Your task to perform on an android device: see creations saved in the google photos Image 0: 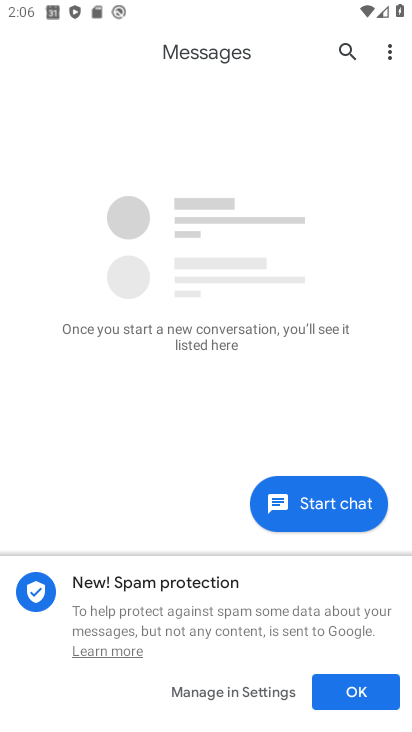
Step 0: press home button
Your task to perform on an android device: see creations saved in the google photos Image 1: 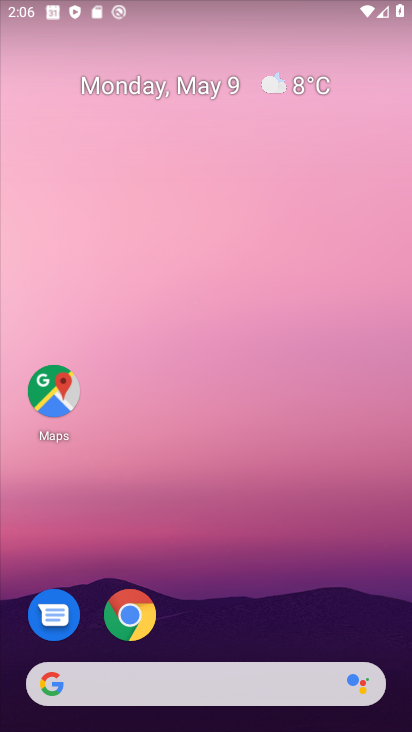
Step 1: drag from (253, 632) to (233, 71)
Your task to perform on an android device: see creations saved in the google photos Image 2: 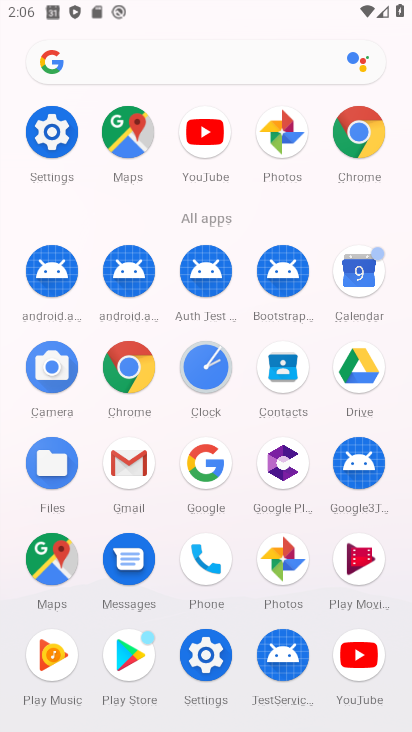
Step 2: click (282, 552)
Your task to perform on an android device: see creations saved in the google photos Image 3: 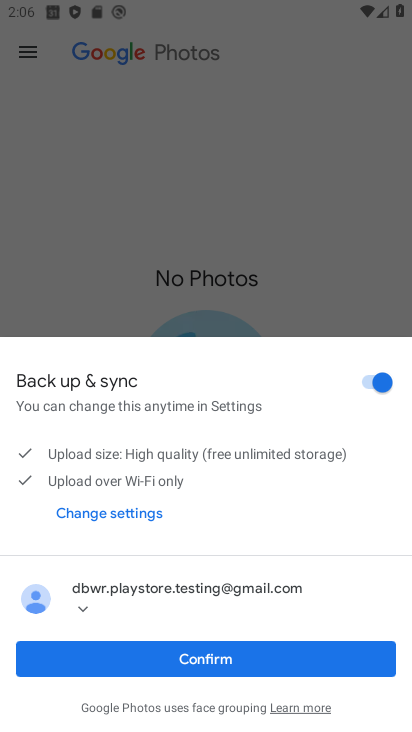
Step 3: click (253, 667)
Your task to perform on an android device: see creations saved in the google photos Image 4: 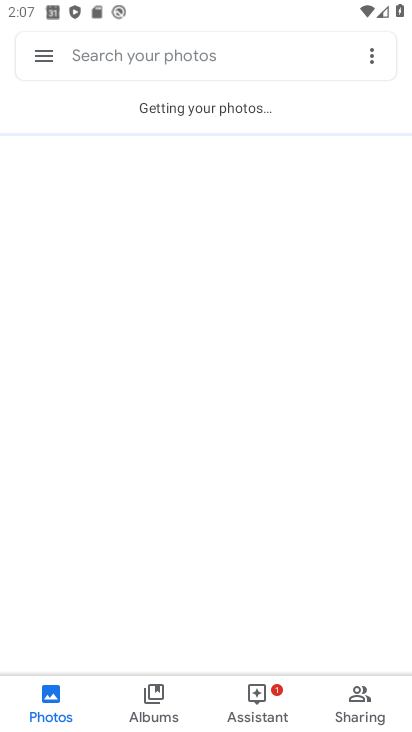
Step 4: click (179, 54)
Your task to perform on an android device: see creations saved in the google photos Image 5: 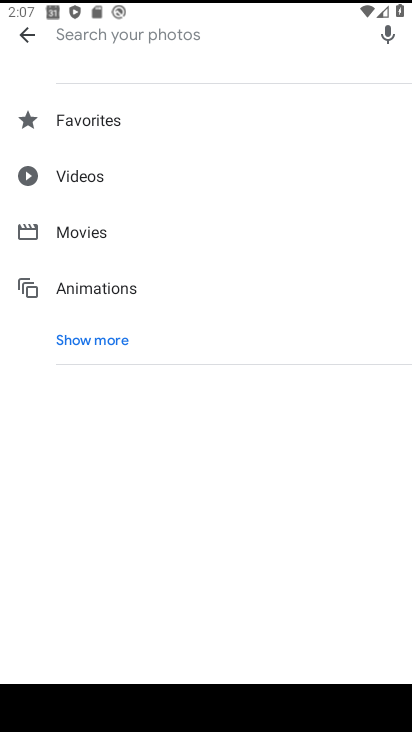
Step 5: click (94, 333)
Your task to perform on an android device: see creations saved in the google photos Image 6: 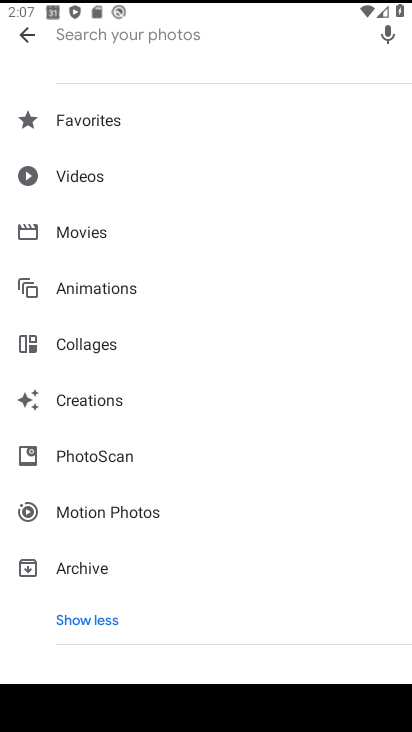
Step 6: click (59, 401)
Your task to perform on an android device: see creations saved in the google photos Image 7: 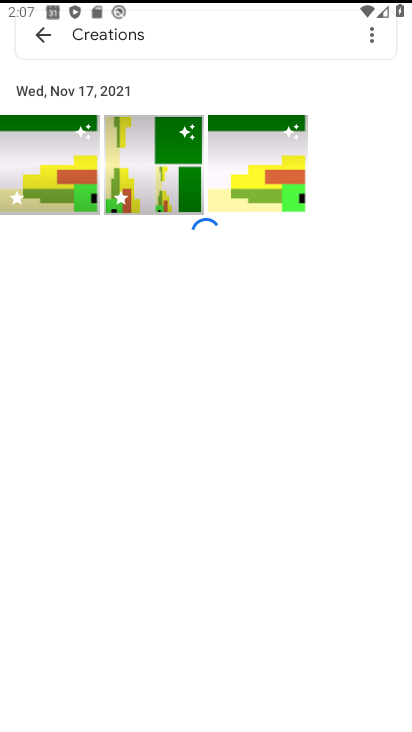
Step 7: task complete